Your task to perform on an android device: Open location settings Image 0: 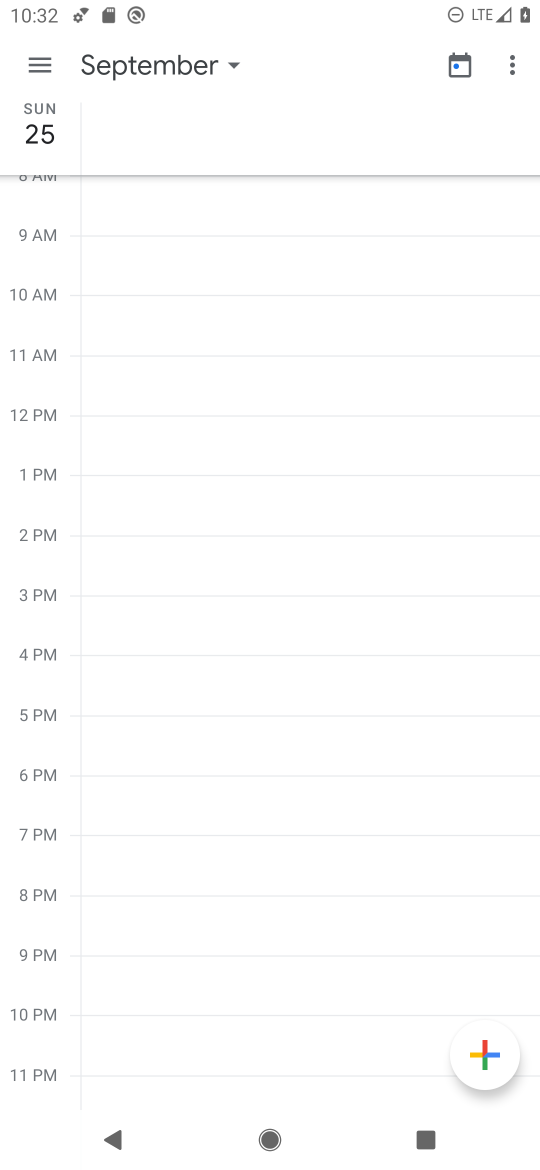
Step 0: press home button
Your task to perform on an android device: Open location settings Image 1: 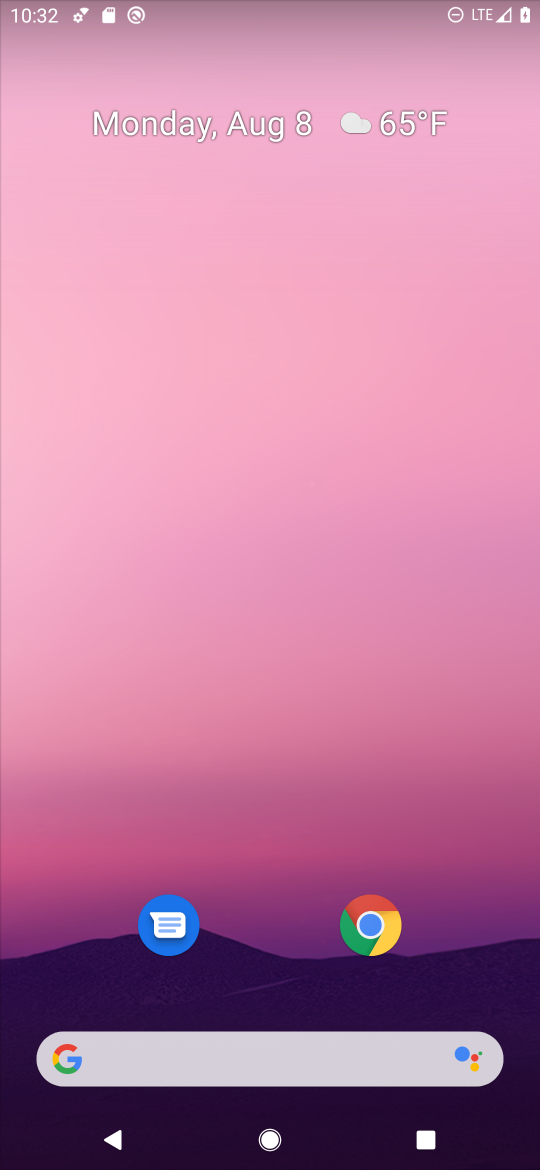
Step 1: drag from (257, 944) to (320, 194)
Your task to perform on an android device: Open location settings Image 2: 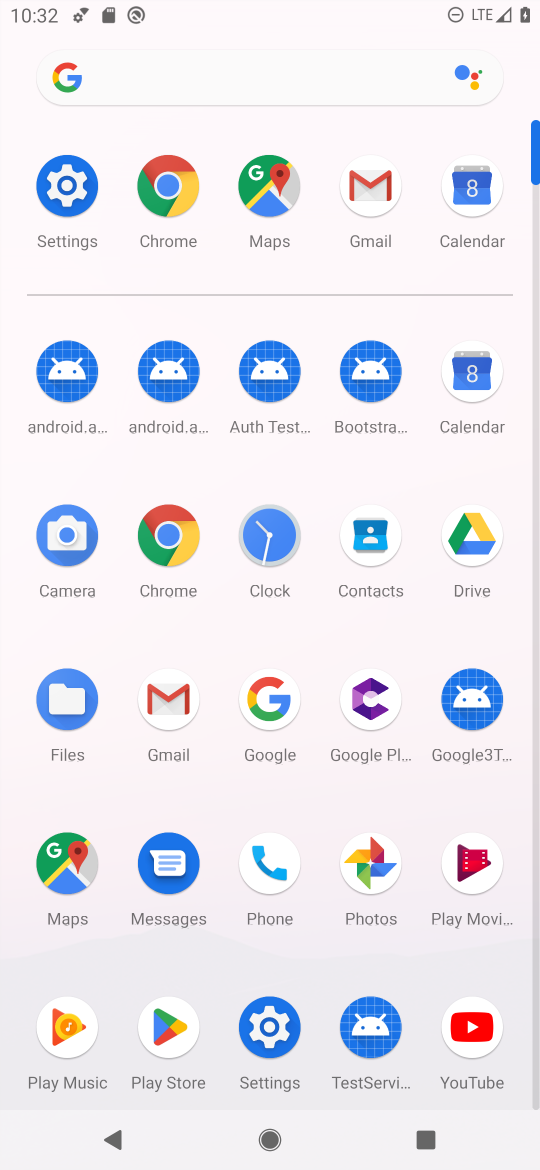
Step 2: click (265, 1037)
Your task to perform on an android device: Open location settings Image 3: 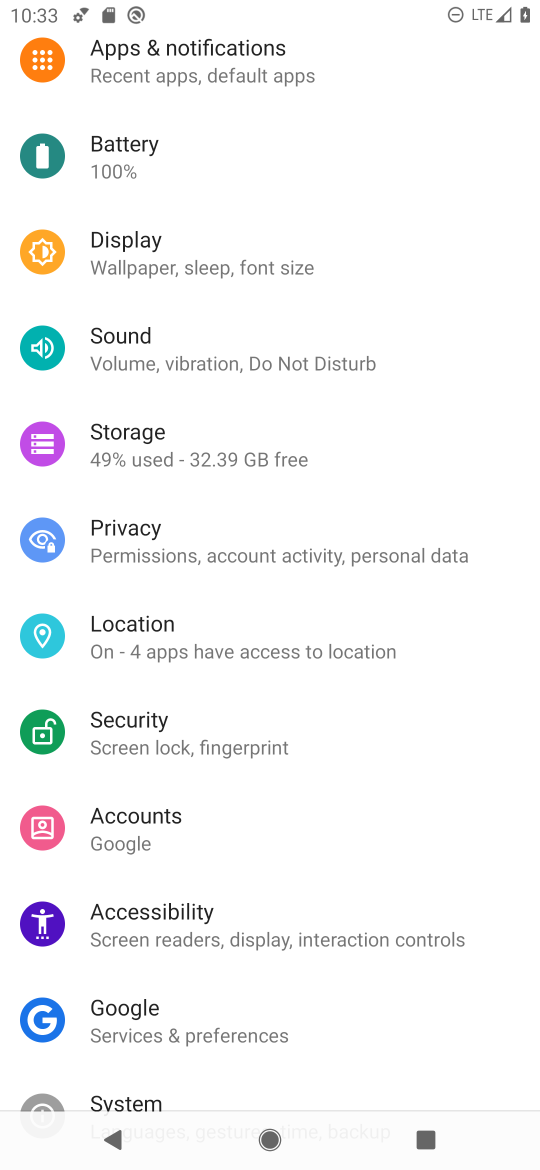
Step 3: click (171, 629)
Your task to perform on an android device: Open location settings Image 4: 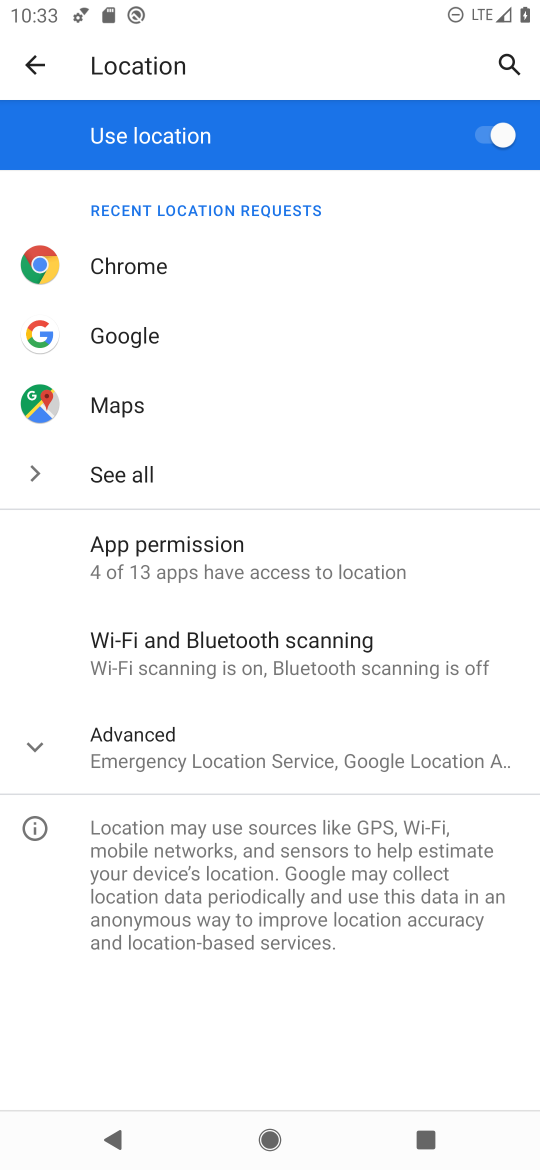
Step 4: task complete